Your task to perform on an android device: toggle sleep mode Image 0: 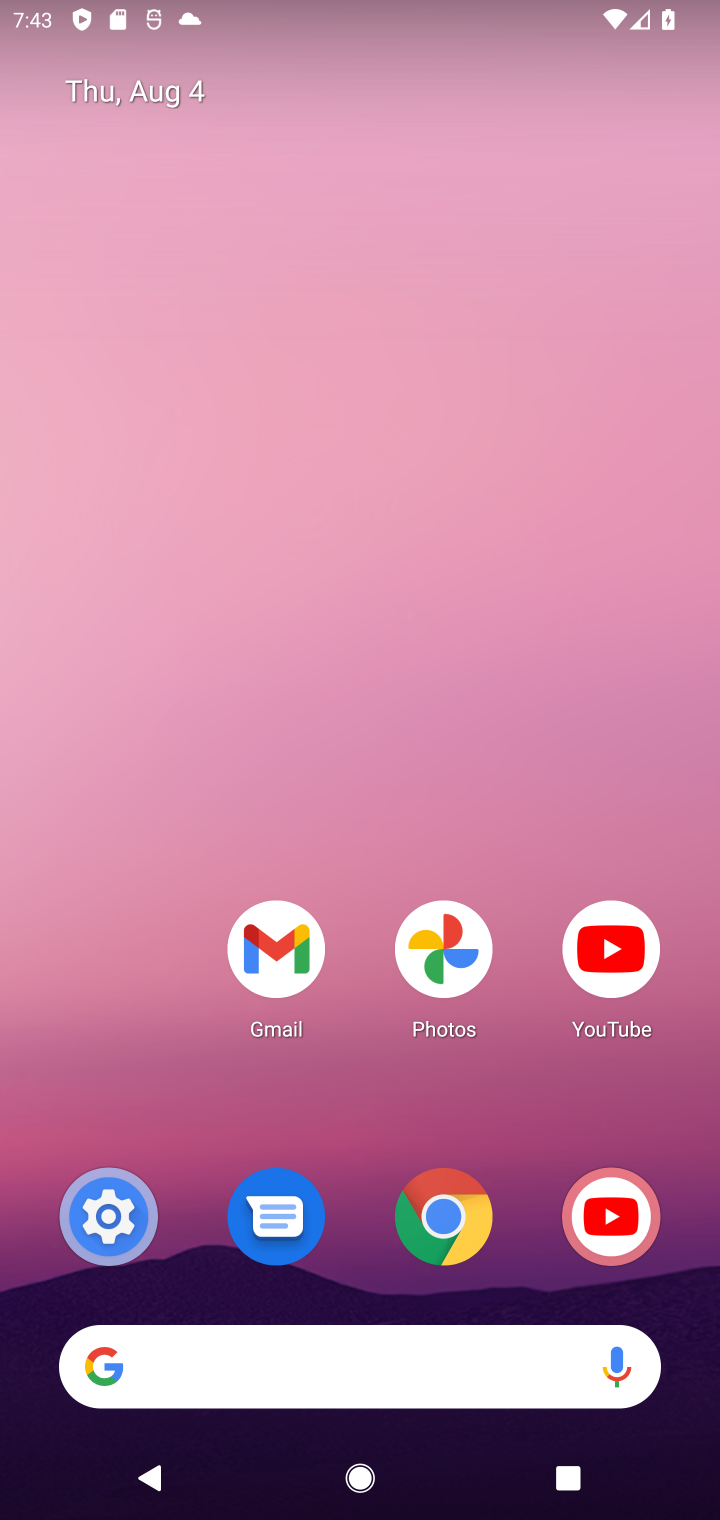
Step 0: drag from (357, 862) to (365, 12)
Your task to perform on an android device: toggle sleep mode Image 1: 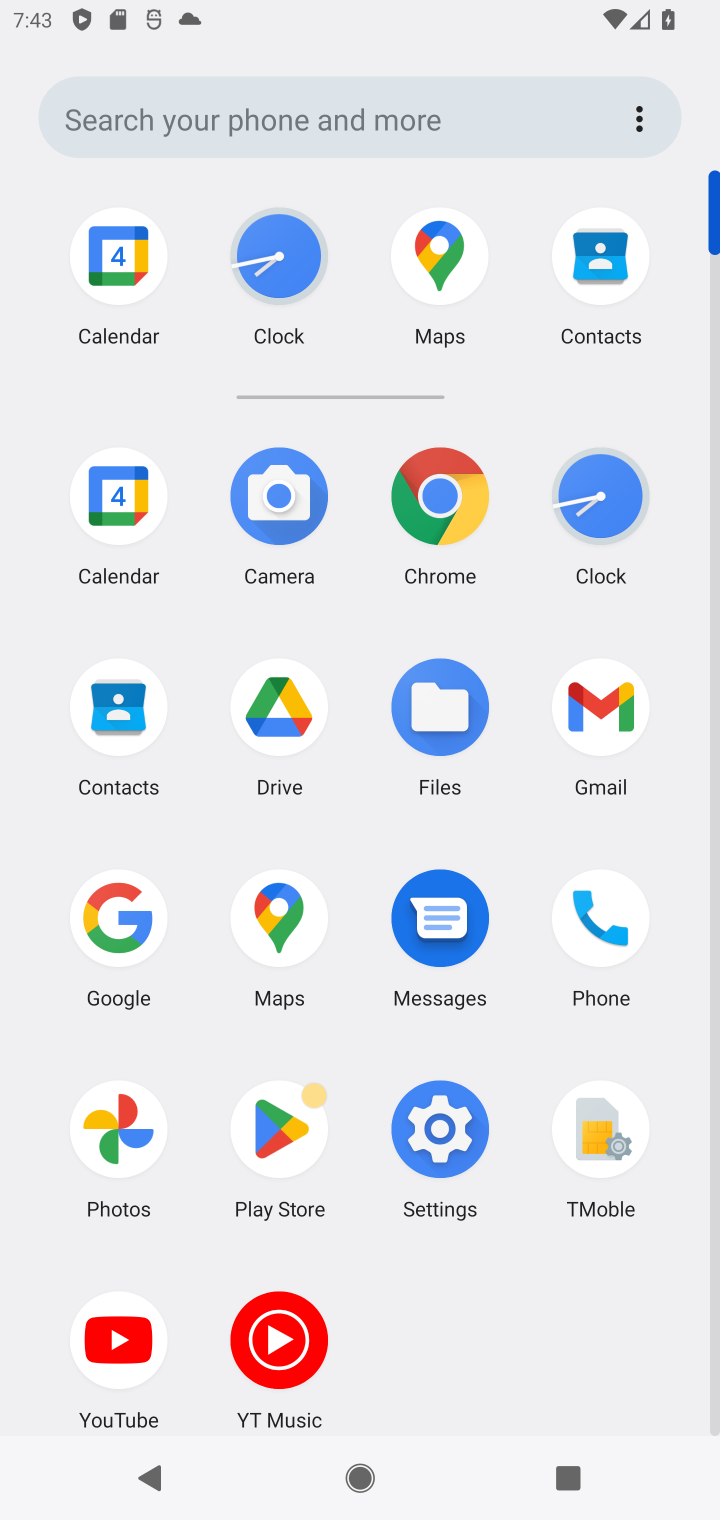
Step 1: click (440, 1123)
Your task to perform on an android device: toggle sleep mode Image 2: 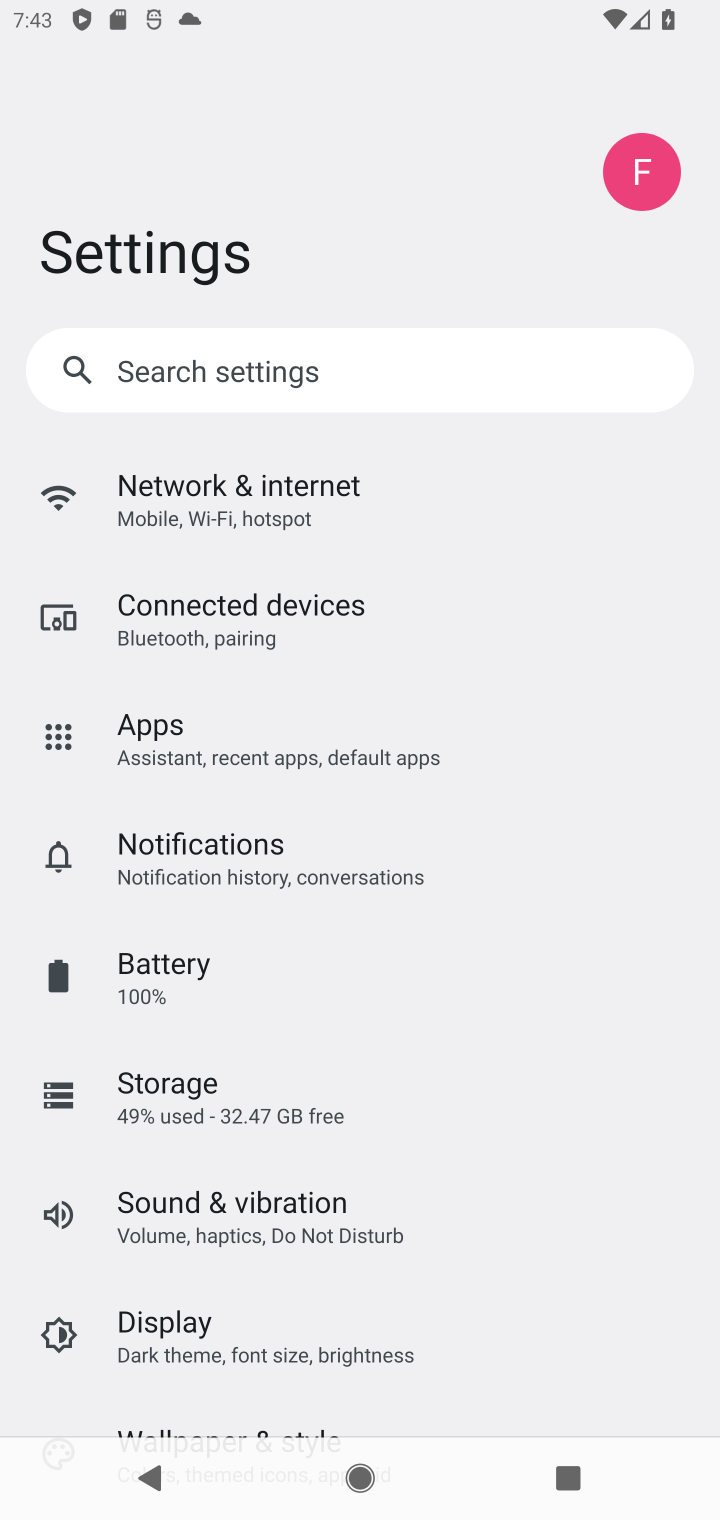
Step 2: task complete